Your task to perform on an android device: Open maps Image 0: 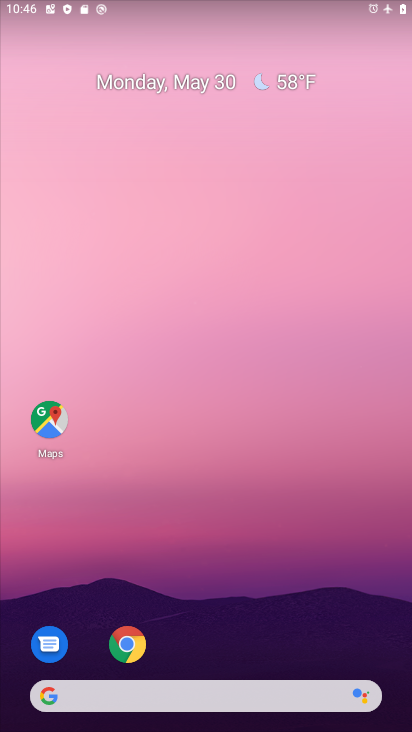
Step 0: click (50, 420)
Your task to perform on an android device: Open maps Image 1: 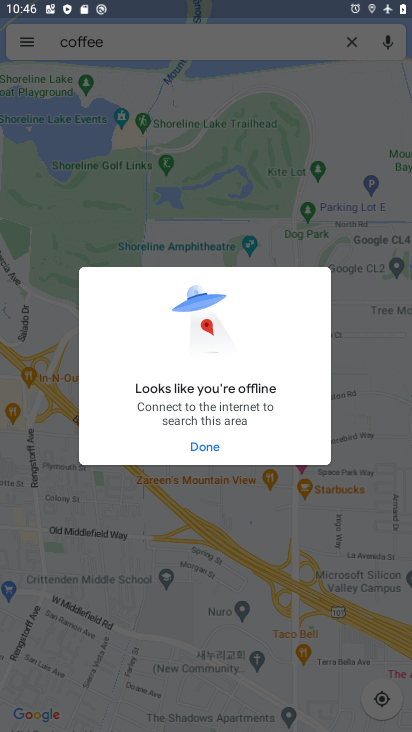
Step 1: click (200, 447)
Your task to perform on an android device: Open maps Image 2: 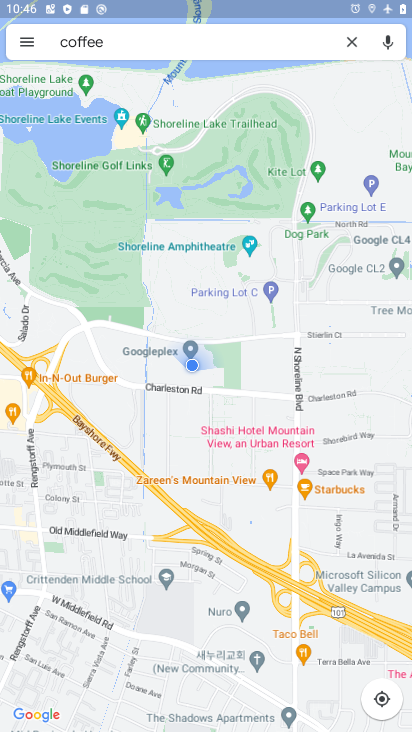
Step 2: task complete